Your task to perform on an android device: Open privacy settings Image 0: 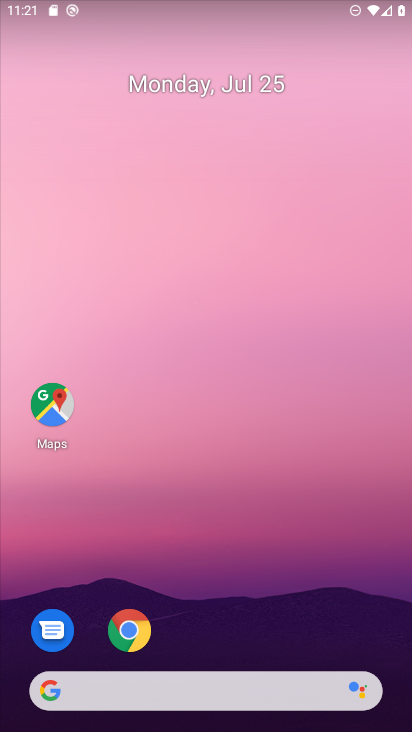
Step 0: drag from (283, 608) to (270, 19)
Your task to perform on an android device: Open privacy settings Image 1: 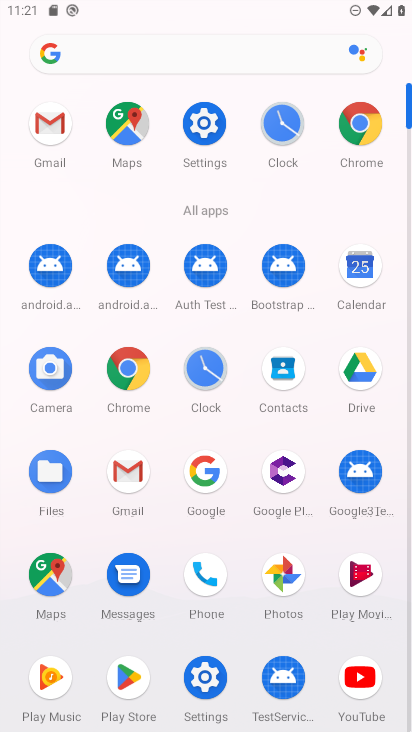
Step 1: click (204, 116)
Your task to perform on an android device: Open privacy settings Image 2: 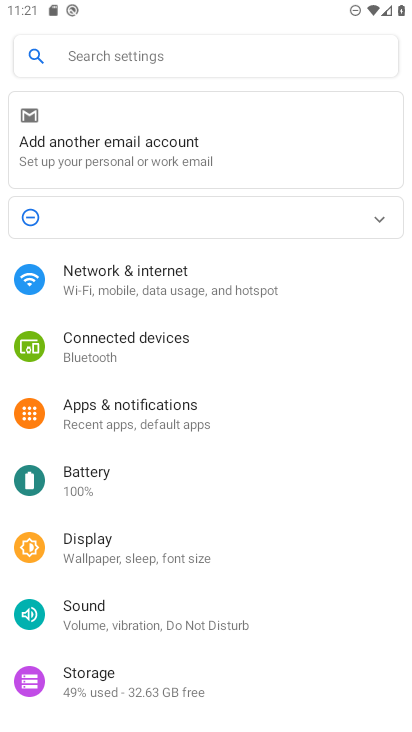
Step 2: drag from (318, 633) to (318, 418)
Your task to perform on an android device: Open privacy settings Image 3: 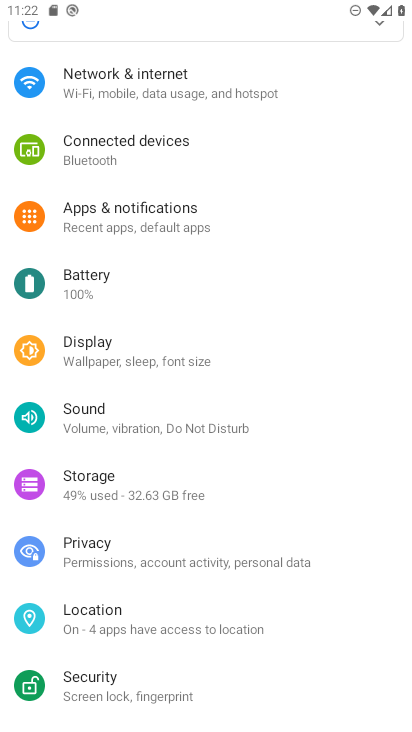
Step 3: click (80, 554)
Your task to perform on an android device: Open privacy settings Image 4: 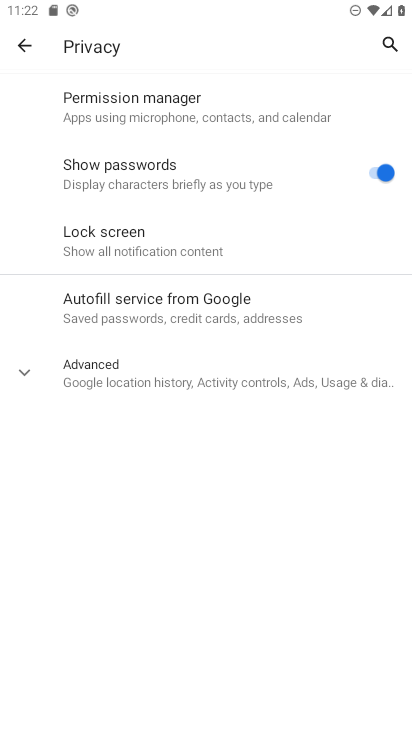
Step 4: task complete